Your task to perform on an android device: turn pop-ups off in chrome Image 0: 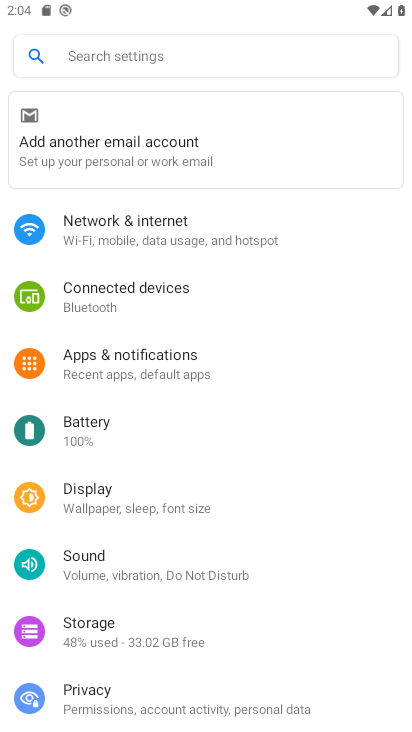
Step 0: press home button
Your task to perform on an android device: turn pop-ups off in chrome Image 1: 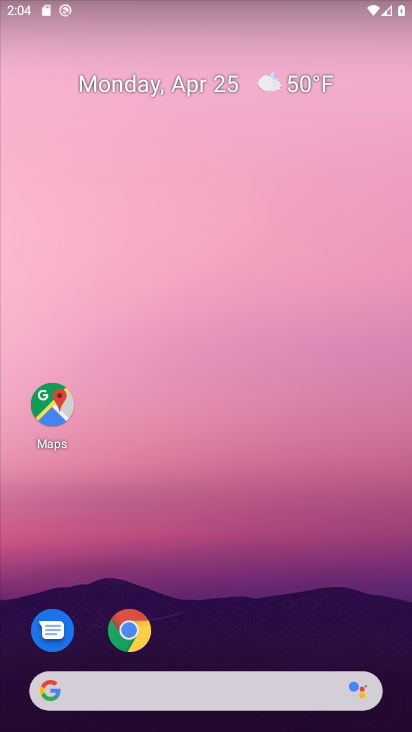
Step 1: click (126, 632)
Your task to perform on an android device: turn pop-ups off in chrome Image 2: 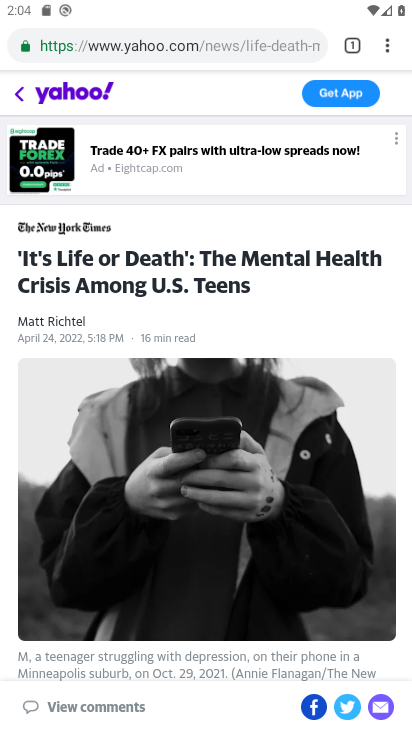
Step 2: click (388, 37)
Your task to perform on an android device: turn pop-ups off in chrome Image 3: 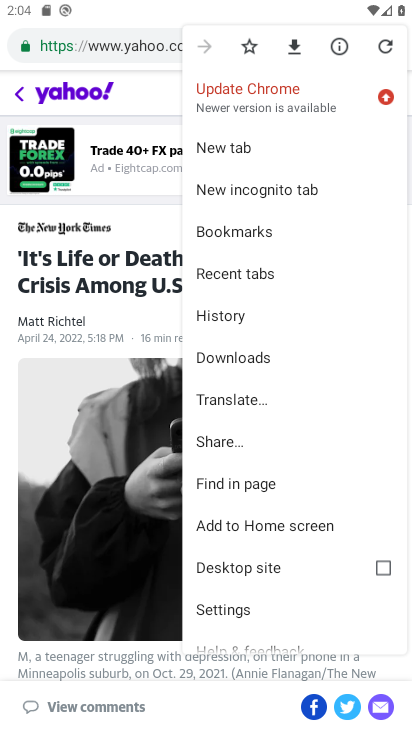
Step 3: click (216, 598)
Your task to perform on an android device: turn pop-ups off in chrome Image 4: 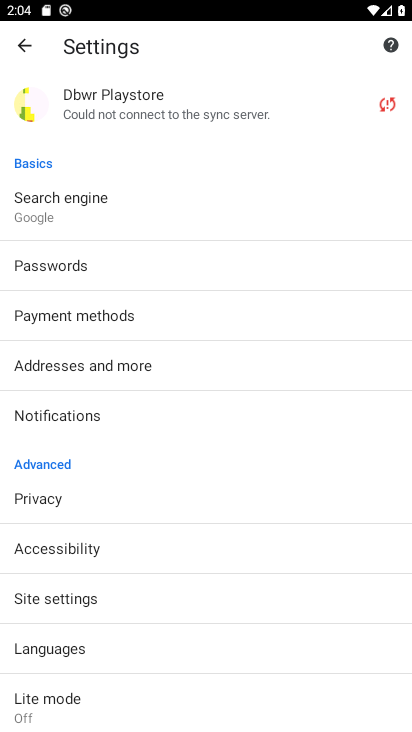
Step 4: click (81, 618)
Your task to perform on an android device: turn pop-ups off in chrome Image 5: 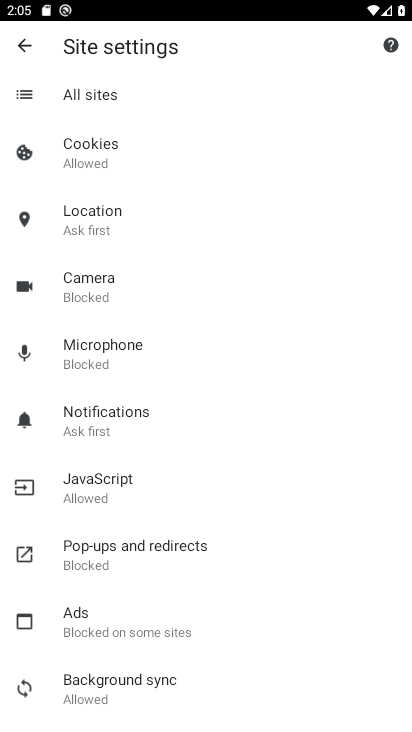
Step 5: click (97, 532)
Your task to perform on an android device: turn pop-ups off in chrome Image 6: 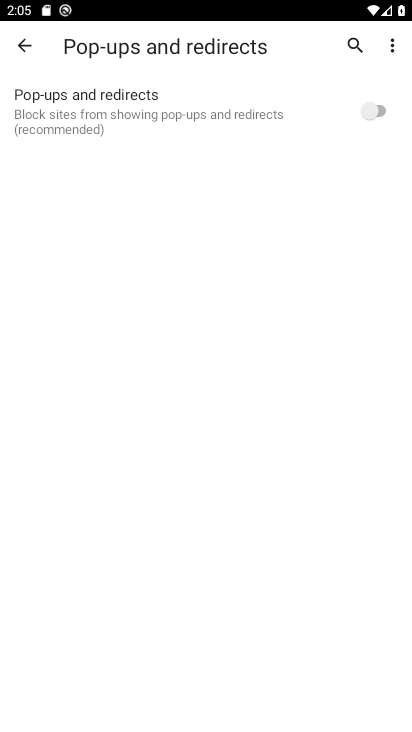
Step 6: task complete